Your task to perform on an android device: Search for custom made wallets on etsy.com Image 0: 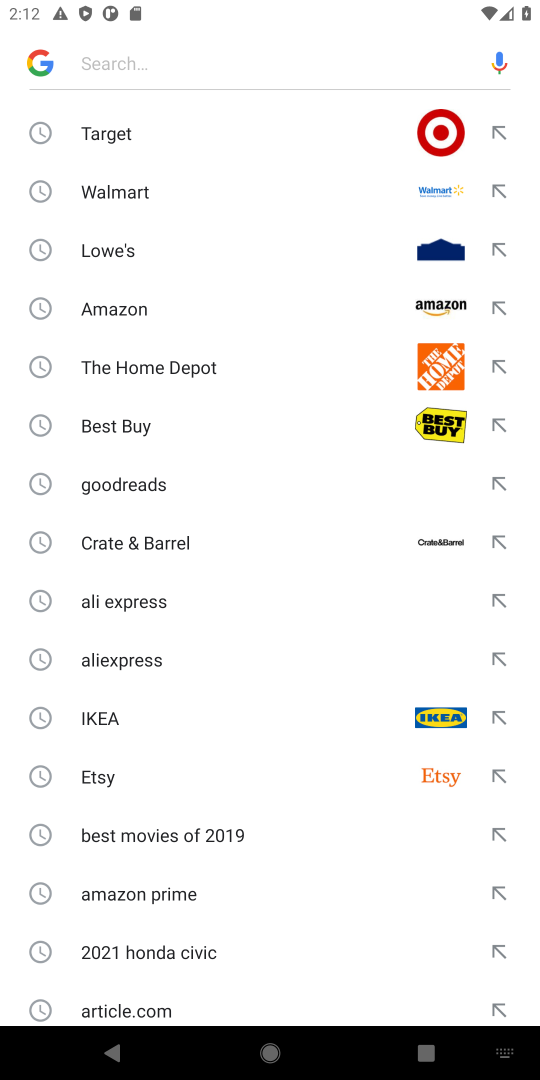
Step 0: press home button
Your task to perform on an android device: Search for custom made wallets on etsy.com Image 1: 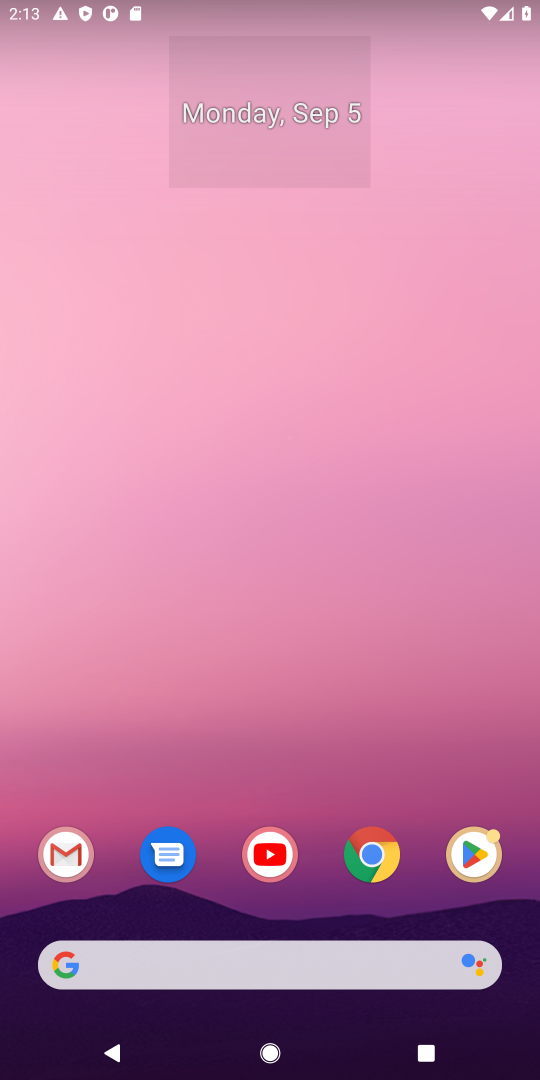
Step 1: click (367, 965)
Your task to perform on an android device: Search for custom made wallets on etsy.com Image 2: 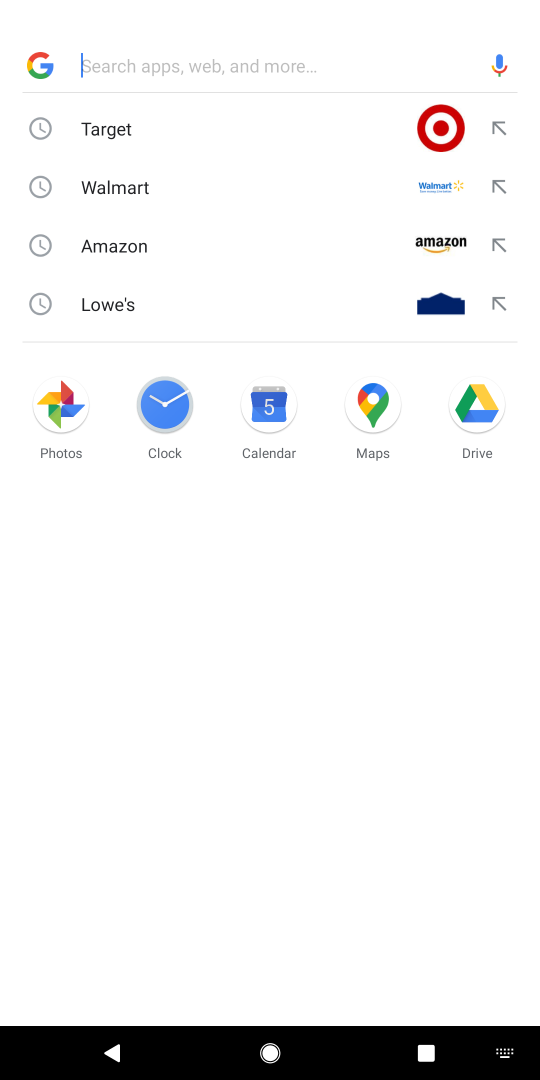
Step 2: type "etsy.com"
Your task to perform on an android device: Search for custom made wallets on etsy.com Image 3: 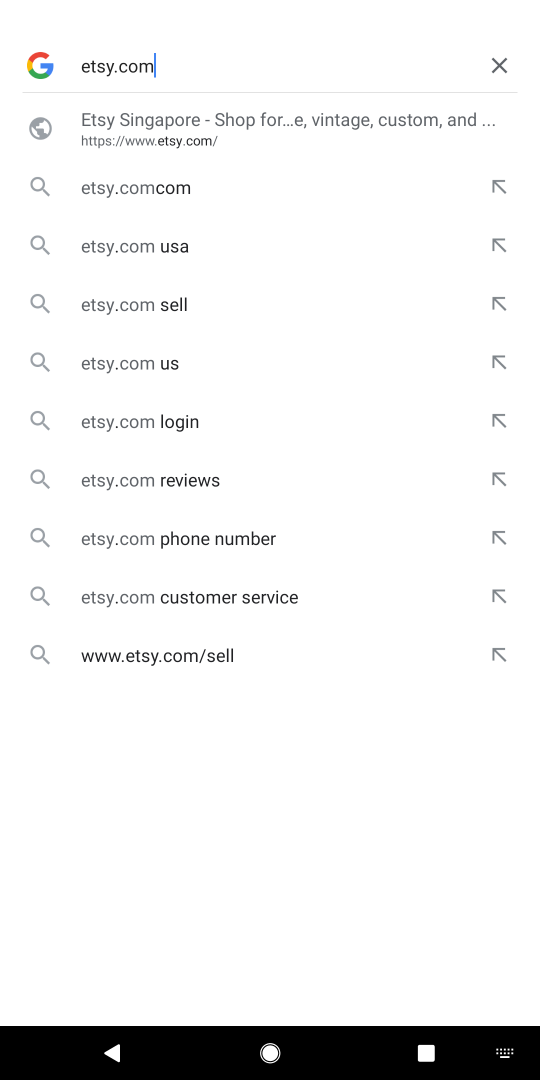
Step 3: press enter
Your task to perform on an android device: Search for custom made wallets on etsy.com Image 4: 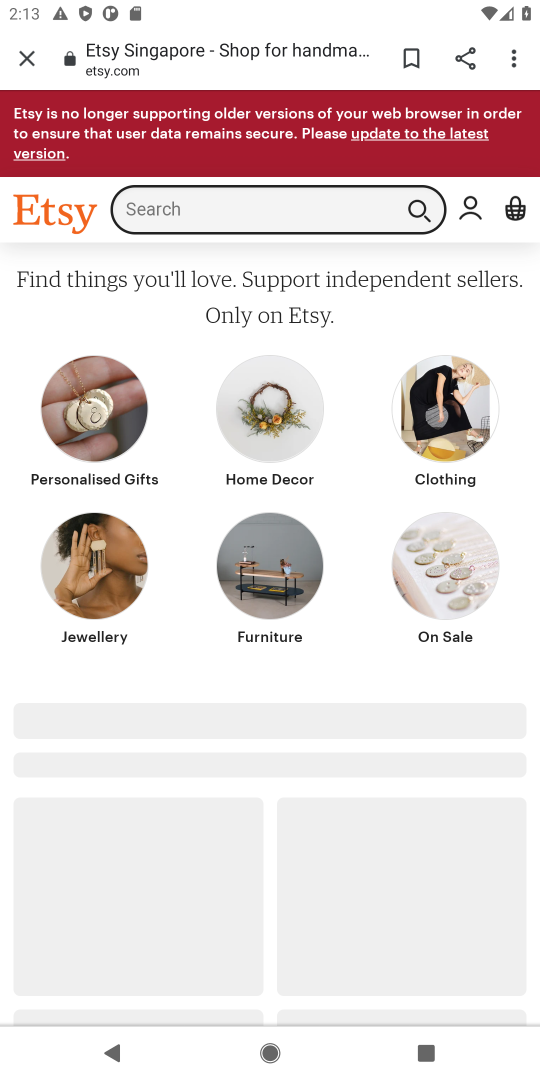
Step 4: click (165, 196)
Your task to perform on an android device: Search for custom made wallets on etsy.com Image 5: 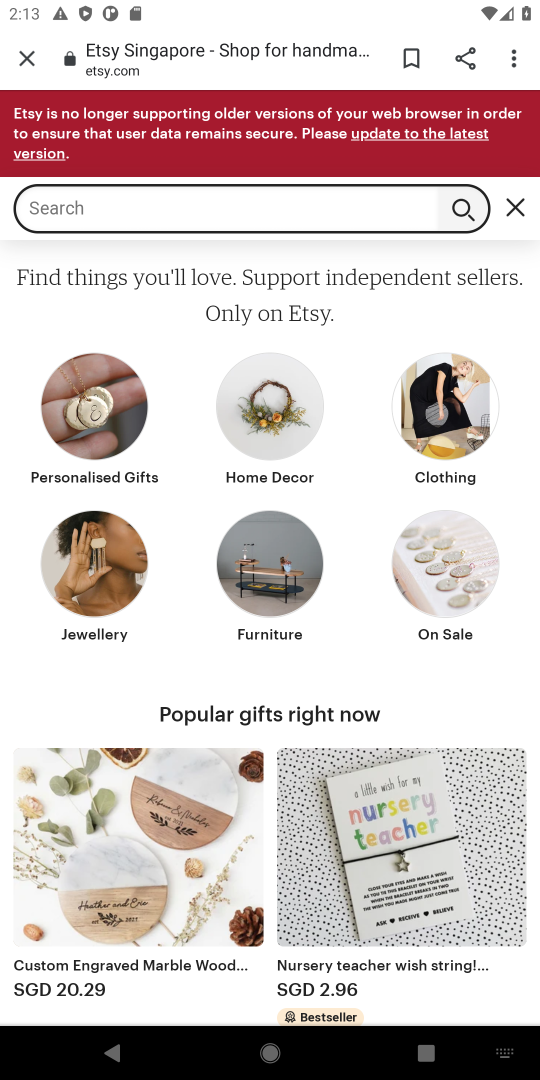
Step 5: type "custom made wallets"
Your task to perform on an android device: Search for custom made wallets on etsy.com Image 6: 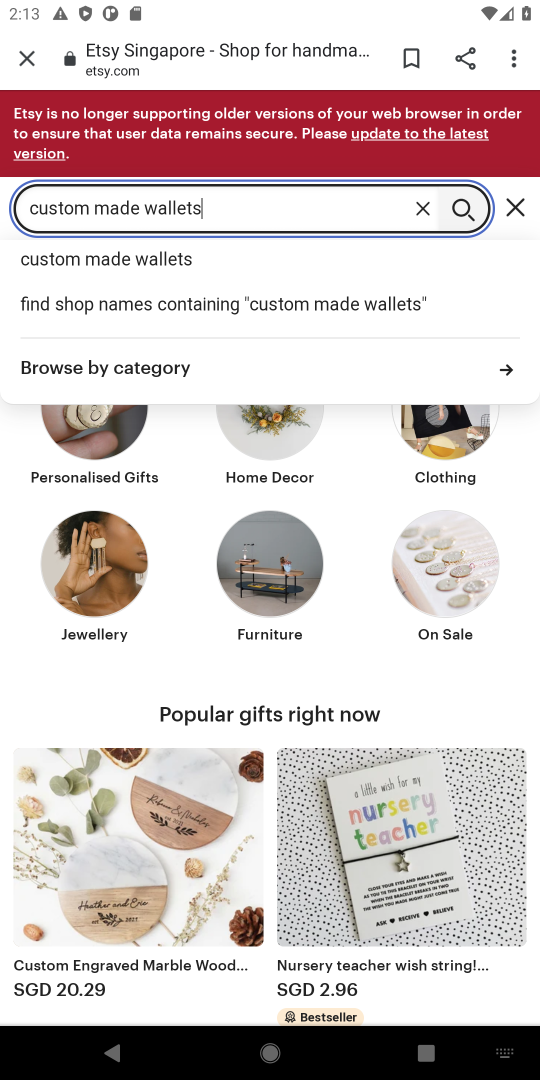
Step 6: click (141, 251)
Your task to perform on an android device: Search for custom made wallets on etsy.com Image 7: 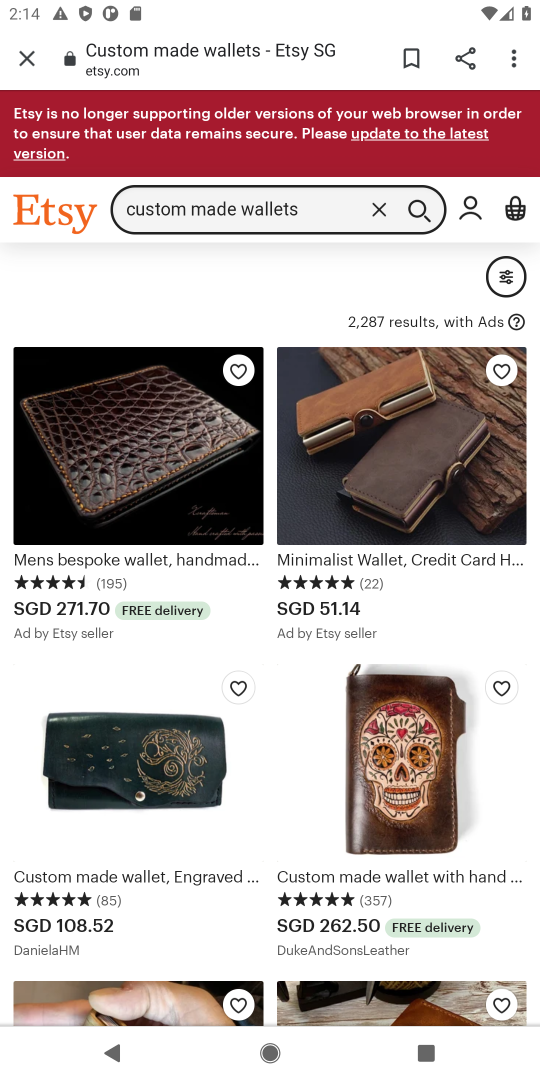
Step 7: task complete